Your task to perform on an android device: Turn on the flashlight Image 0: 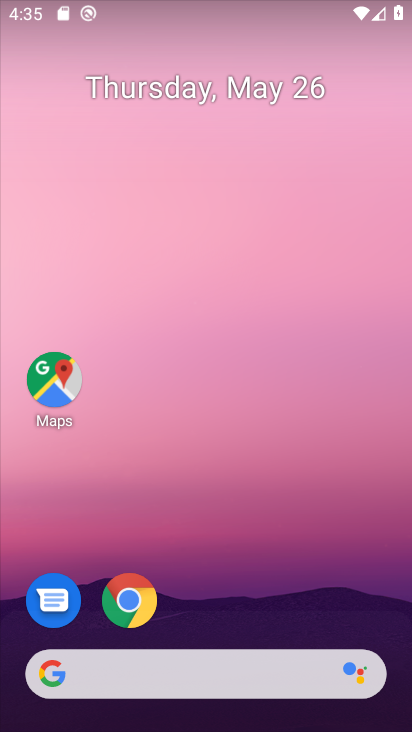
Step 0: drag from (236, 628) to (296, 154)
Your task to perform on an android device: Turn on the flashlight Image 1: 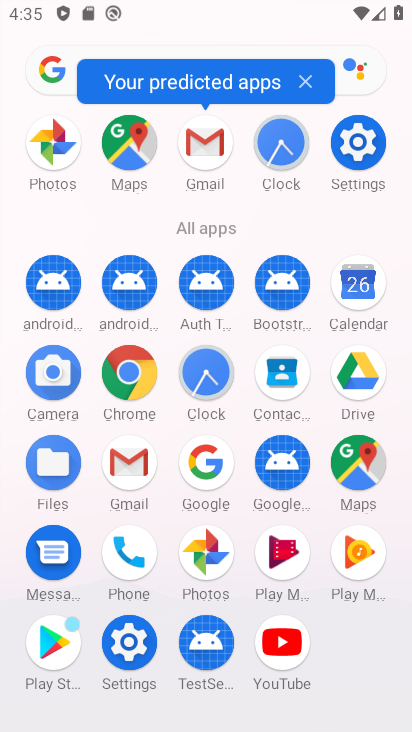
Step 1: click (138, 641)
Your task to perform on an android device: Turn on the flashlight Image 2: 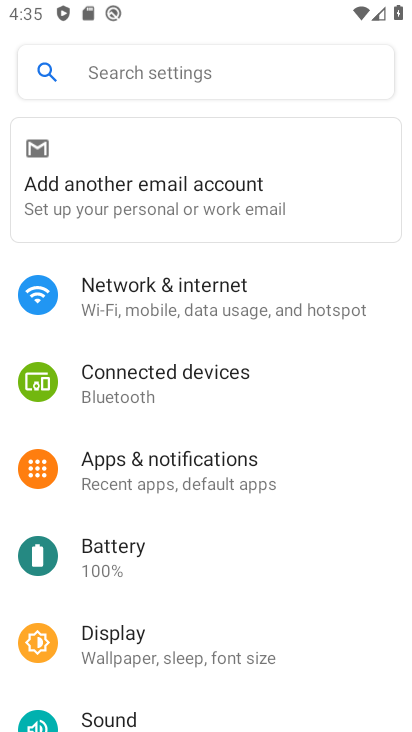
Step 2: click (181, 73)
Your task to perform on an android device: Turn on the flashlight Image 3: 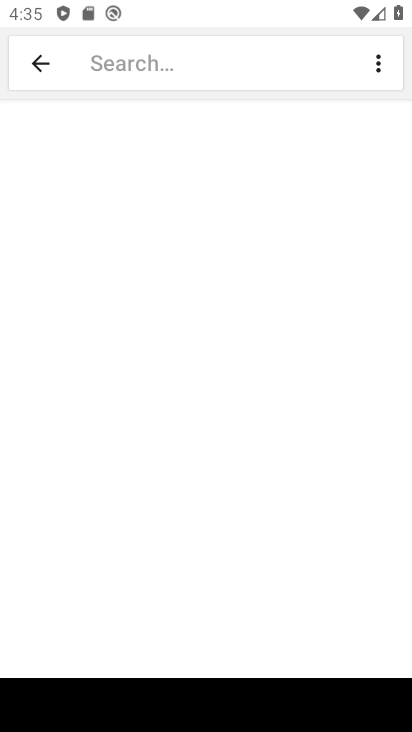
Step 3: type "flashlight"
Your task to perform on an android device: Turn on the flashlight Image 4: 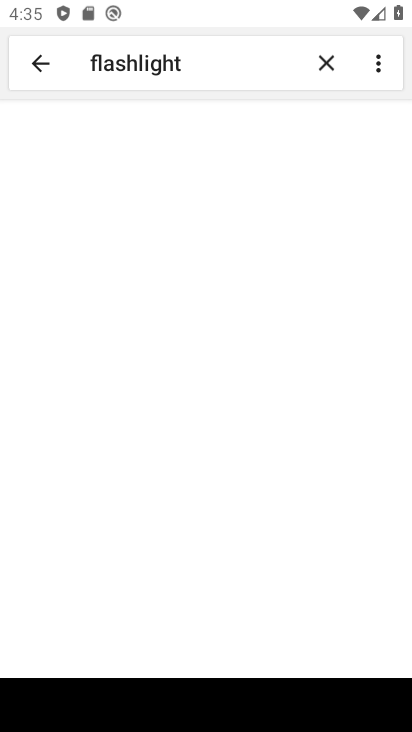
Step 4: click (118, 145)
Your task to perform on an android device: Turn on the flashlight Image 5: 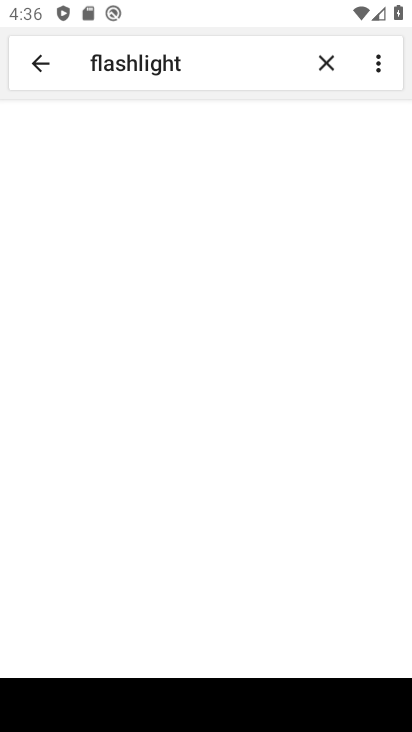
Step 5: click (157, 165)
Your task to perform on an android device: Turn on the flashlight Image 6: 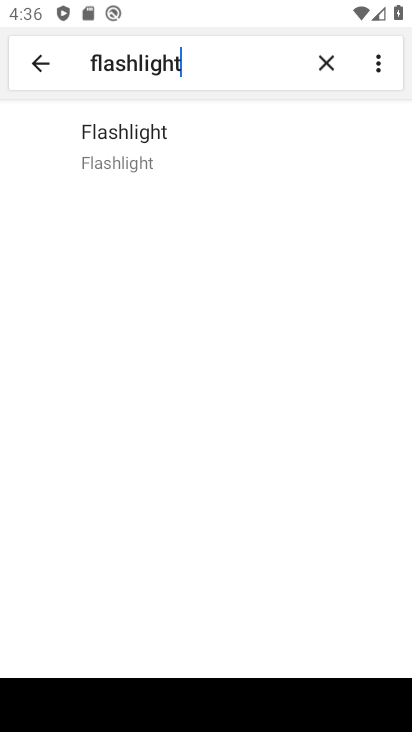
Step 6: click (157, 165)
Your task to perform on an android device: Turn on the flashlight Image 7: 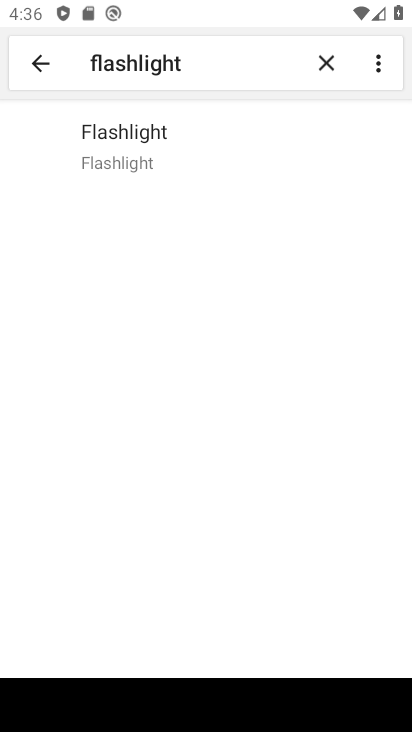
Step 7: click (157, 160)
Your task to perform on an android device: Turn on the flashlight Image 8: 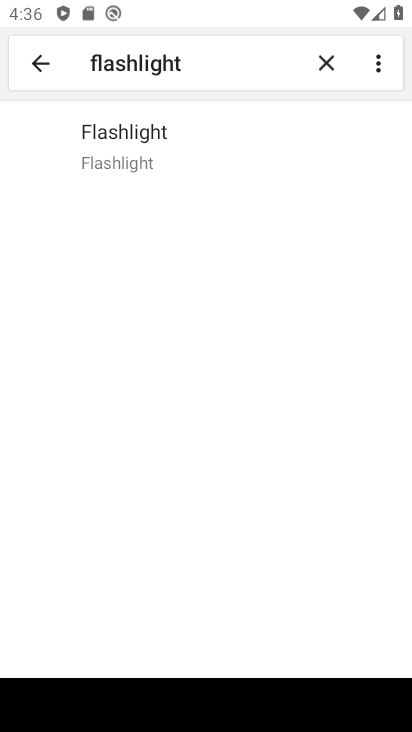
Step 8: click (158, 158)
Your task to perform on an android device: Turn on the flashlight Image 9: 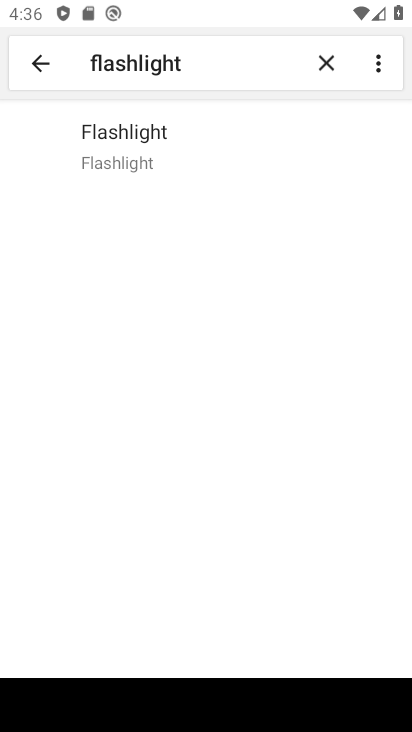
Step 9: task complete